Your task to perform on an android device: Show me productivity apps on the Play Store Image 0: 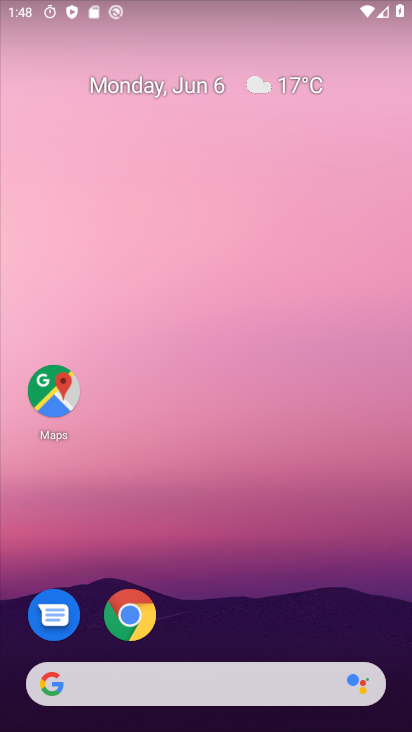
Step 0: drag from (207, 604) to (247, 133)
Your task to perform on an android device: Show me productivity apps on the Play Store Image 1: 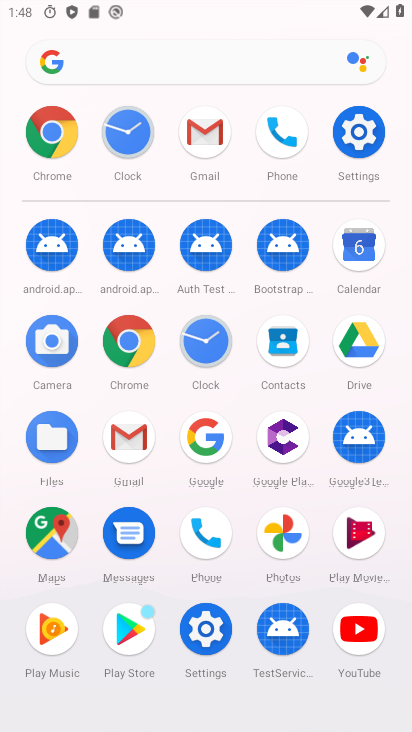
Step 1: click (132, 626)
Your task to perform on an android device: Show me productivity apps on the Play Store Image 2: 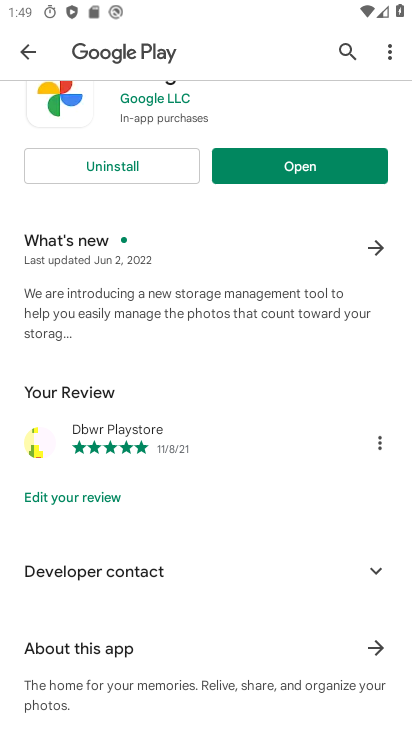
Step 2: drag from (219, 313) to (268, 645)
Your task to perform on an android device: Show me productivity apps on the Play Store Image 3: 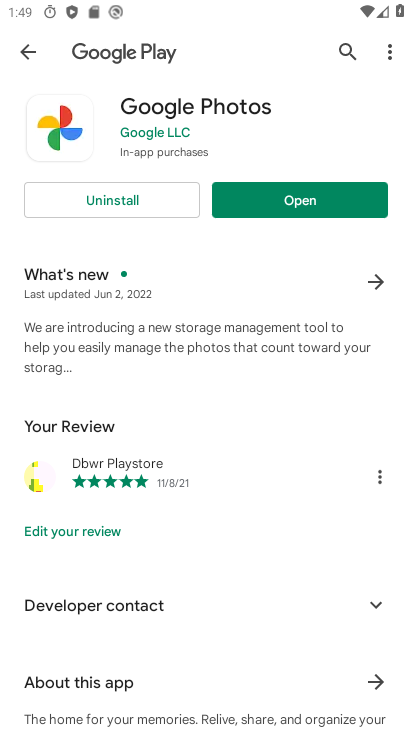
Step 3: press back button
Your task to perform on an android device: Show me productivity apps on the Play Store Image 4: 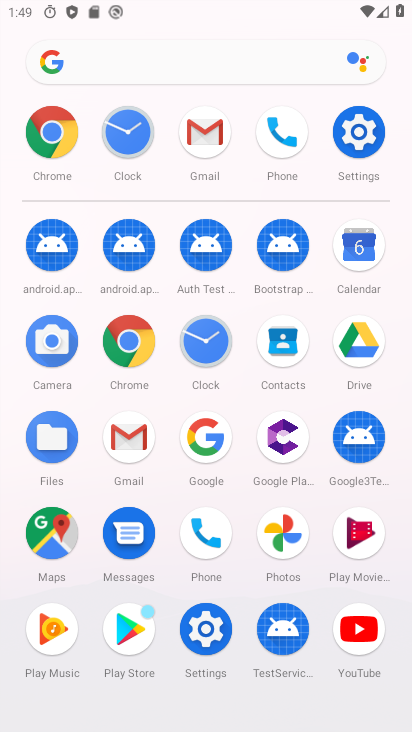
Step 4: click (139, 615)
Your task to perform on an android device: Show me productivity apps on the Play Store Image 5: 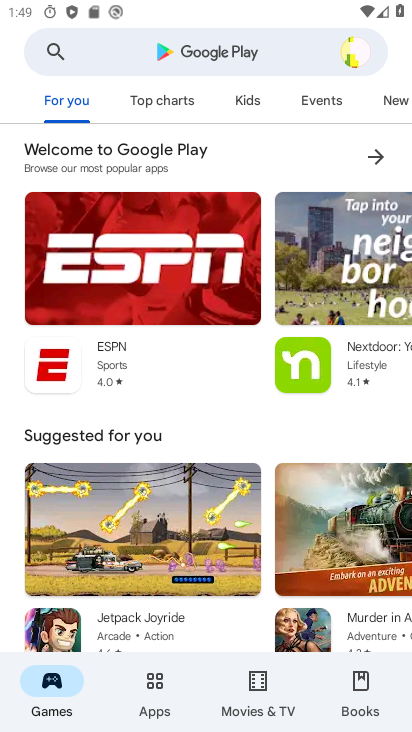
Step 5: task complete